Your task to perform on an android device: turn off location Image 0: 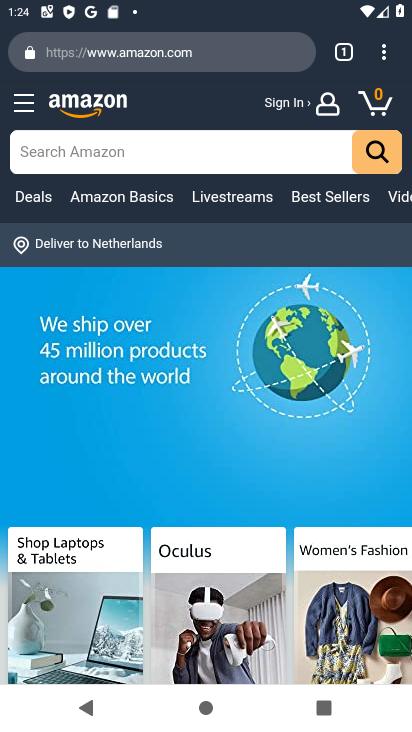
Step 0: press home button
Your task to perform on an android device: turn off location Image 1: 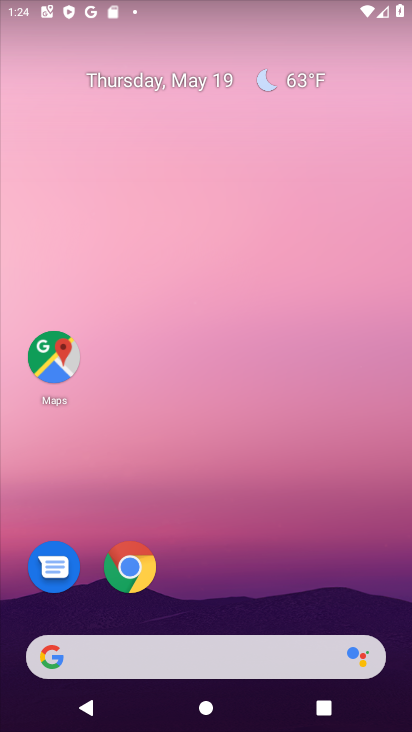
Step 1: drag from (337, 205) to (348, 13)
Your task to perform on an android device: turn off location Image 2: 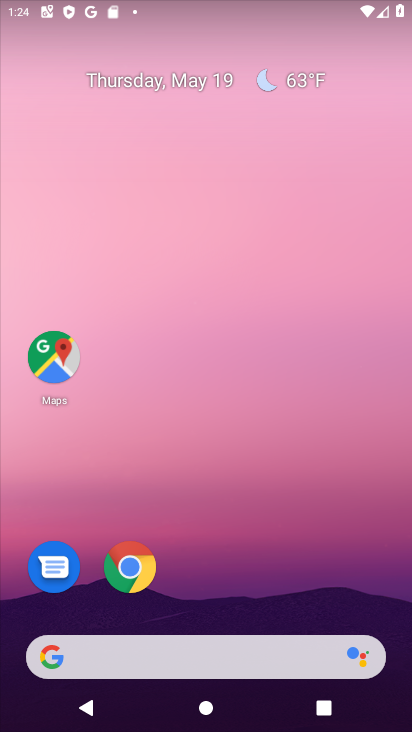
Step 2: drag from (276, 546) to (338, 0)
Your task to perform on an android device: turn off location Image 3: 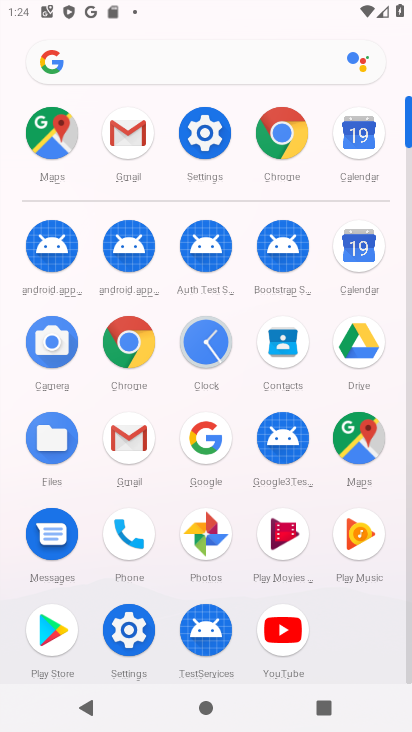
Step 3: click (222, 150)
Your task to perform on an android device: turn off location Image 4: 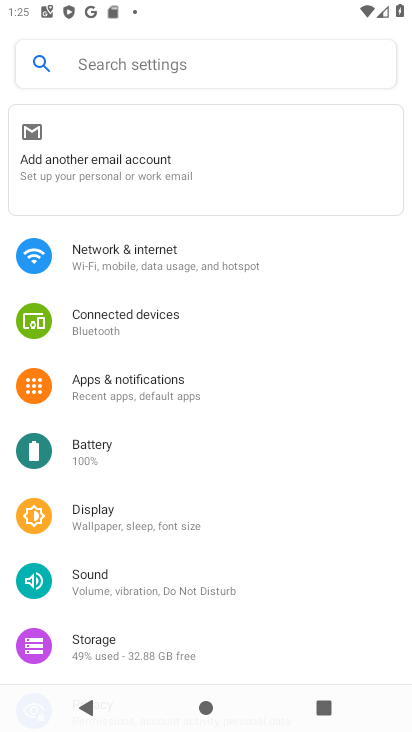
Step 4: drag from (184, 604) to (169, 104)
Your task to perform on an android device: turn off location Image 5: 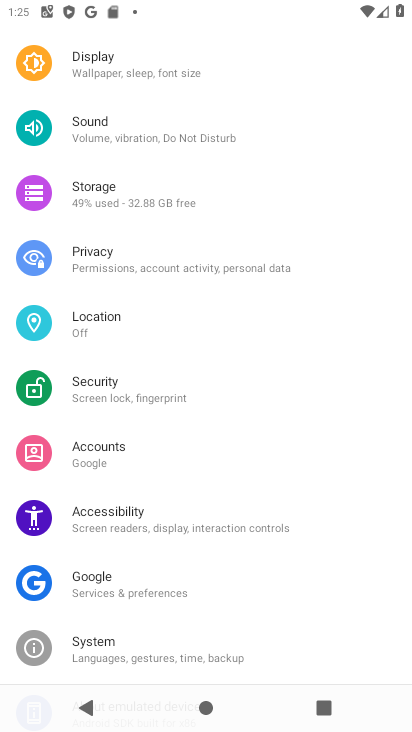
Step 5: click (80, 316)
Your task to perform on an android device: turn off location Image 6: 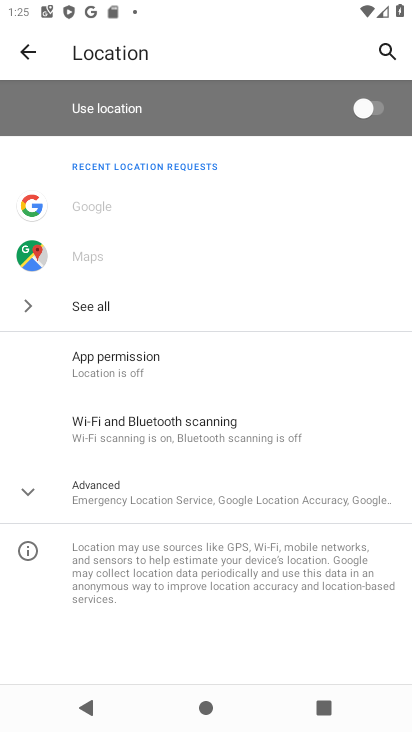
Step 6: task complete